Your task to perform on an android device: turn on priority inbox in the gmail app Image 0: 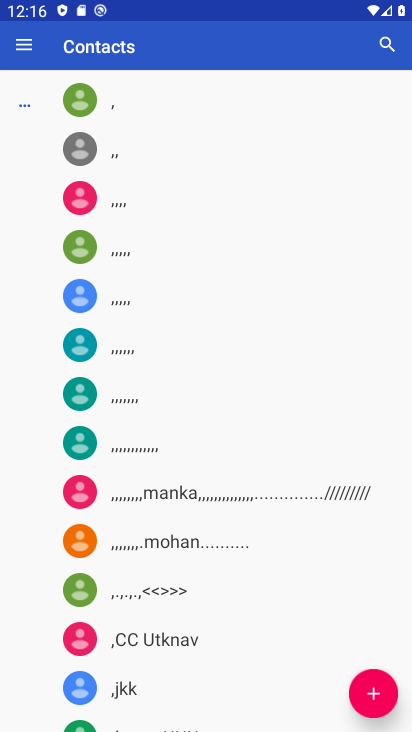
Step 0: press home button
Your task to perform on an android device: turn on priority inbox in the gmail app Image 1: 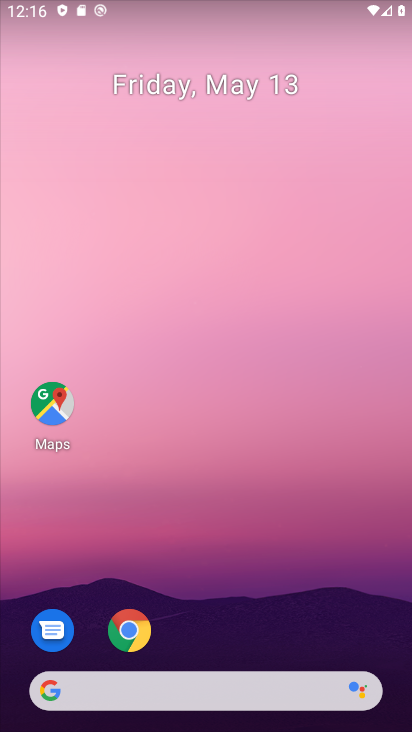
Step 1: drag from (285, 713) to (232, 415)
Your task to perform on an android device: turn on priority inbox in the gmail app Image 2: 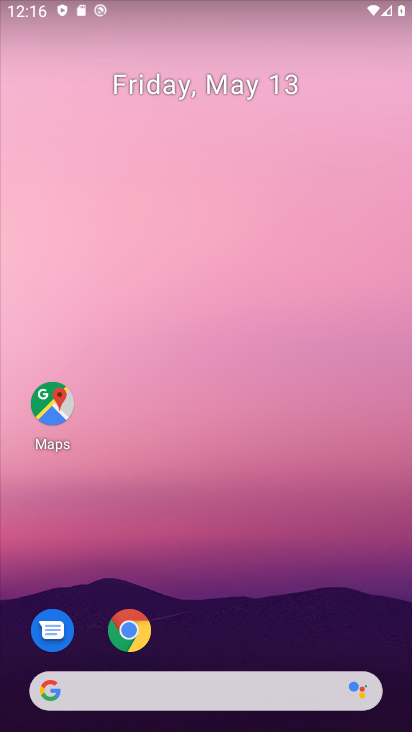
Step 2: drag from (242, 641) to (302, 186)
Your task to perform on an android device: turn on priority inbox in the gmail app Image 3: 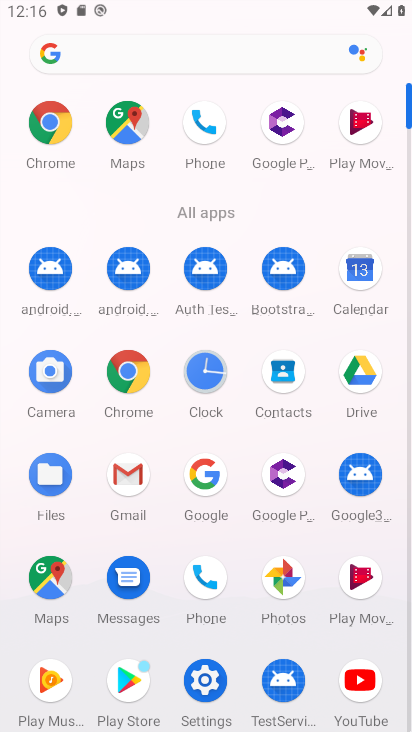
Step 3: click (121, 484)
Your task to perform on an android device: turn on priority inbox in the gmail app Image 4: 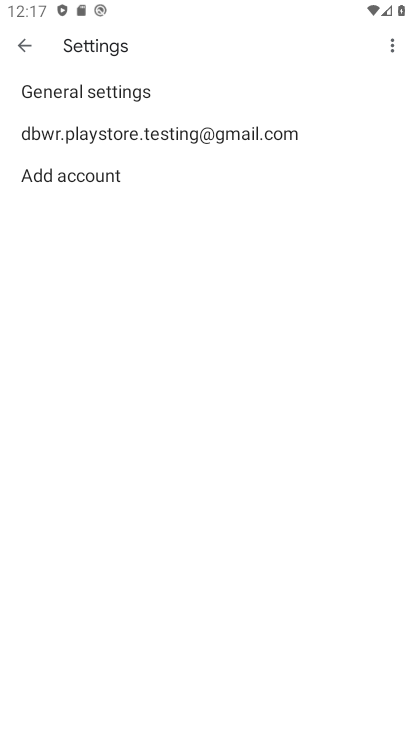
Step 4: click (189, 130)
Your task to perform on an android device: turn on priority inbox in the gmail app Image 5: 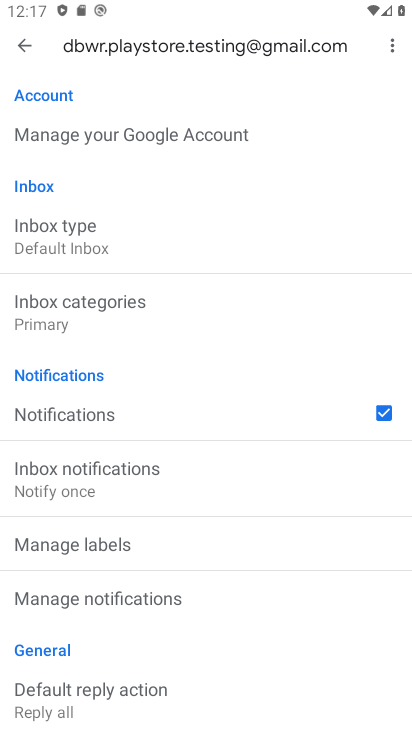
Step 5: click (95, 235)
Your task to perform on an android device: turn on priority inbox in the gmail app Image 6: 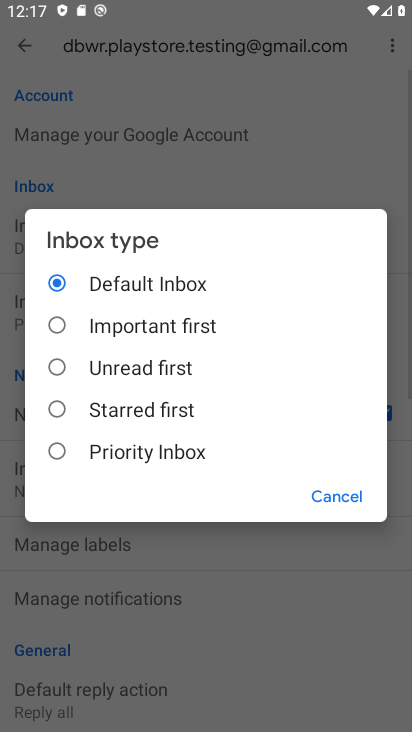
Step 6: click (123, 446)
Your task to perform on an android device: turn on priority inbox in the gmail app Image 7: 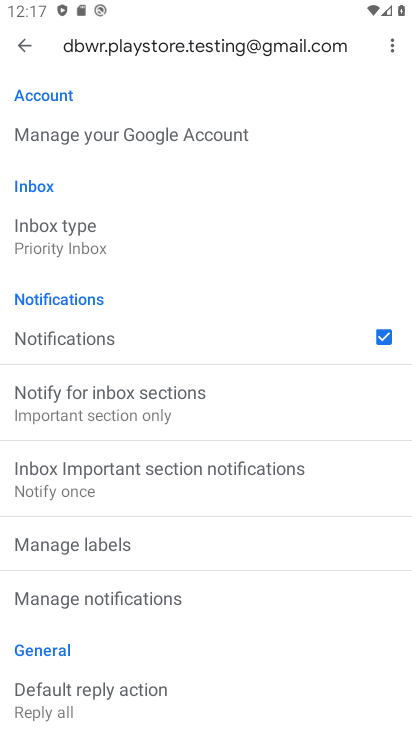
Step 7: task complete